Your task to perform on an android device: Open battery settings Image 0: 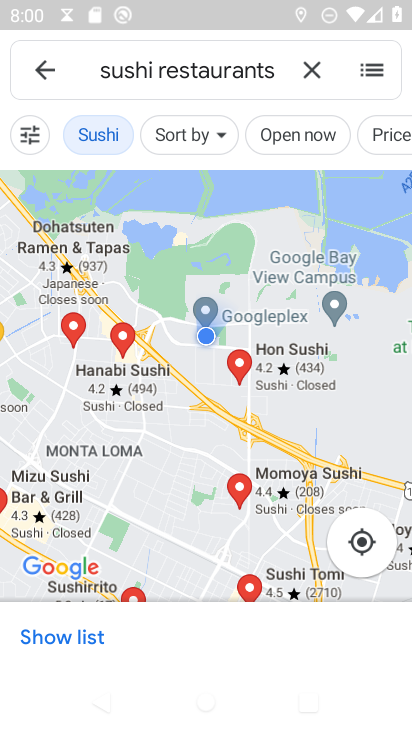
Step 0: press home button
Your task to perform on an android device: Open battery settings Image 1: 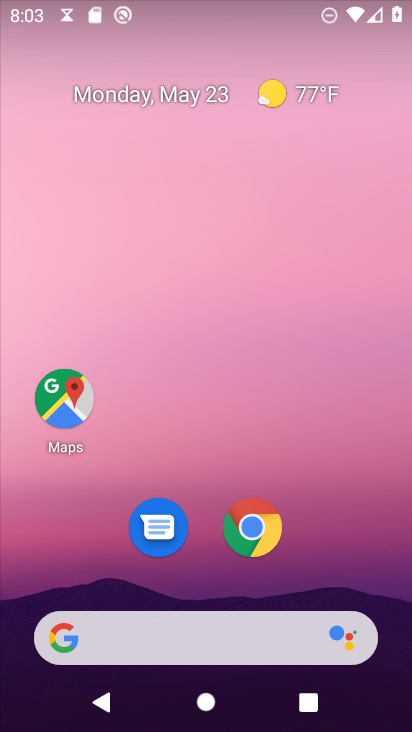
Step 1: drag from (280, 665) to (251, 176)
Your task to perform on an android device: Open battery settings Image 2: 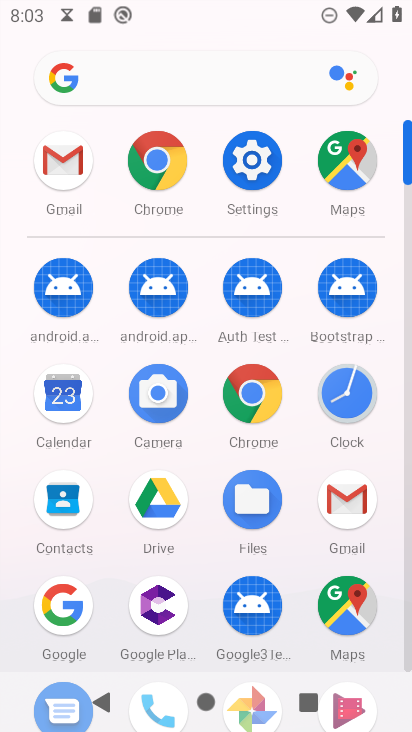
Step 2: click (243, 182)
Your task to perform on an android device: Open battery settings Image 3: 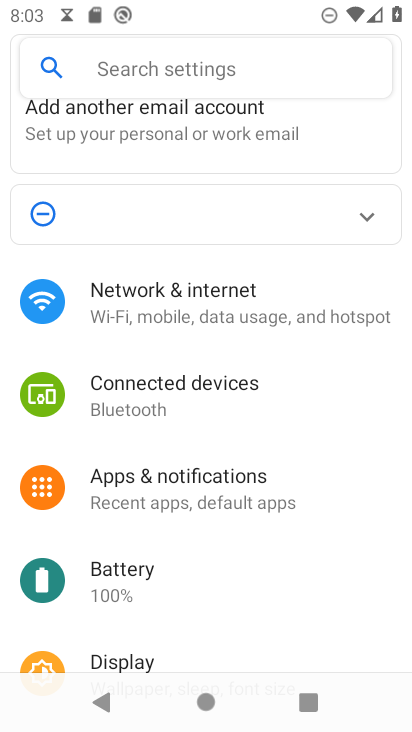
Step 3: click (144, 592)
Your task to perform on an android device: Open battery settings Image 4: 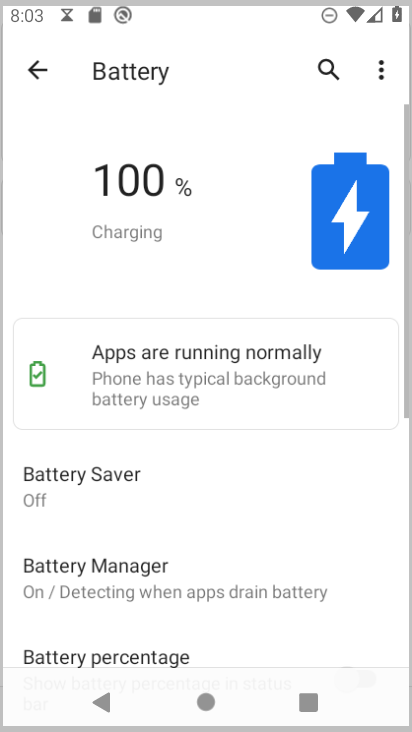
Step 4: task complete